Your task to perform on an android device: check android version Image 0: 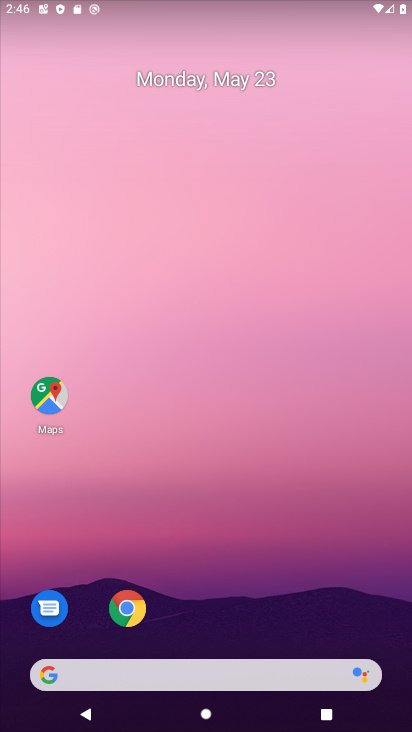
Step 0: drag from (251, 598) to (154, 87)
Your task to perform on an android device: check android version Image 1: 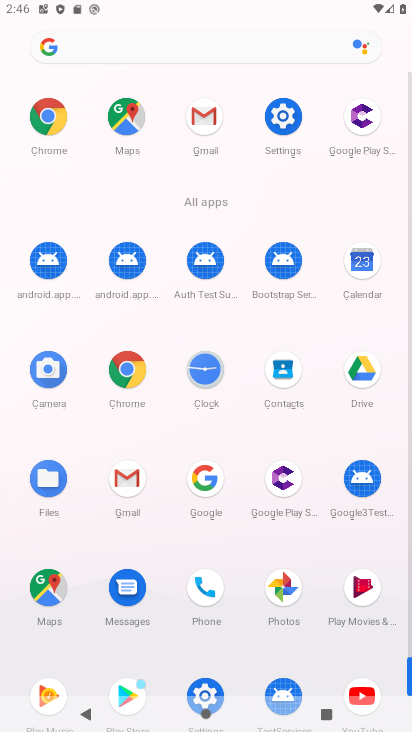
Step 1: click (282, 114)
Your task to perform on an android device: check android version Image 2: 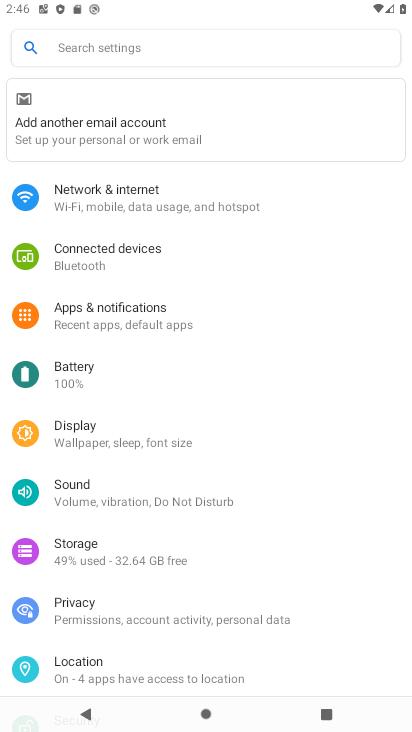
Step 2: drag from (108, 469) to (141, 389)
Your task to perform on an android device: check android version Image 3: 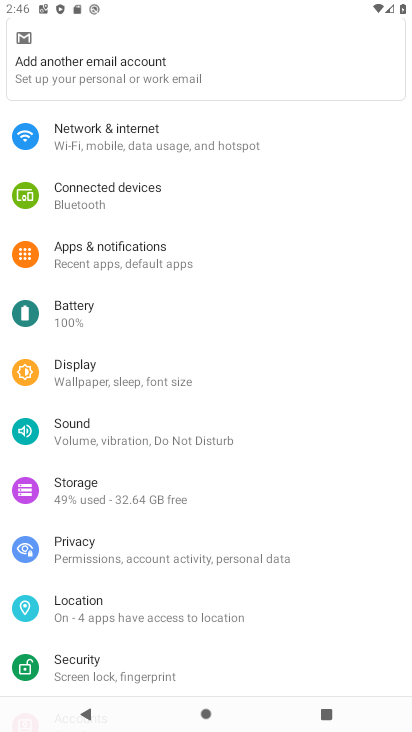
Step 3: drag from (109, 473) to (181, 382)
Your task to perform on an android device: check android version Image 4: 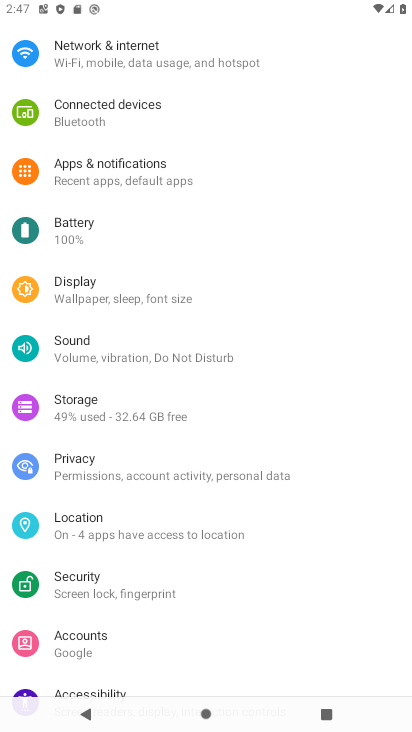
Step 4: drag from (119, 507) to (162, 435)
Your task to perform on an android device: check android version Image 5: 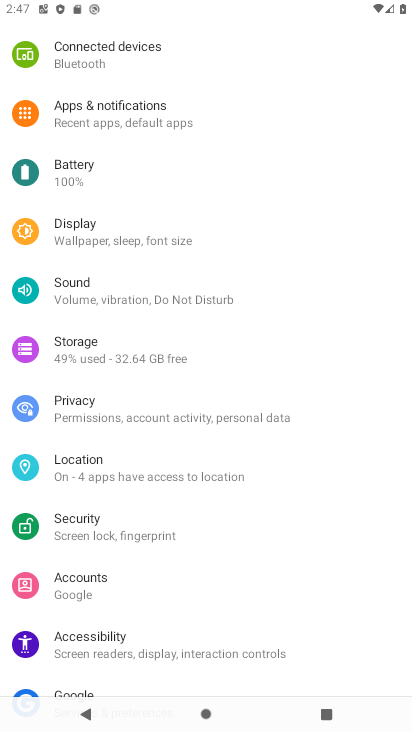
Step 5: drag from (102, 497) to (161, 418)
Your task to perform on an android device: check android version Image 6: 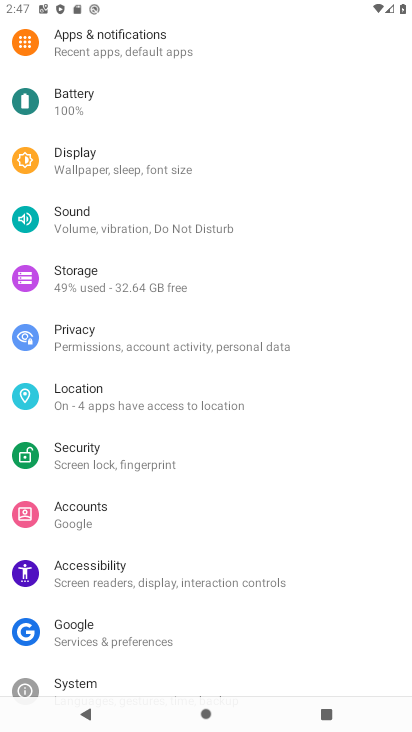
Step 6: drag from (135, 495) to (165, 446)
Your task to perform on an android device: check android version Image 7: 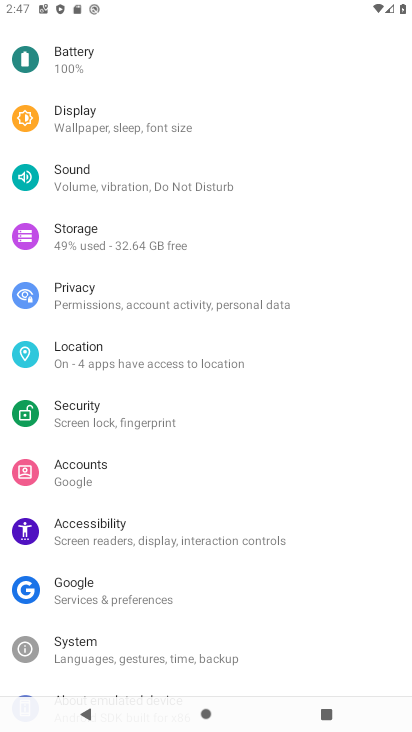
Step 7: drag from (89, 559) to (141, 487)
Your task to perform on an android device: check android version Image 8: 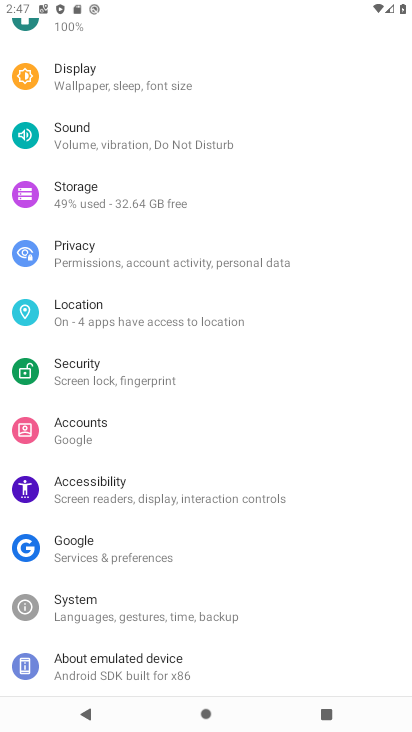
Step 8: click (112, 663)
Your task to perform on an android device: check android version Image 9: 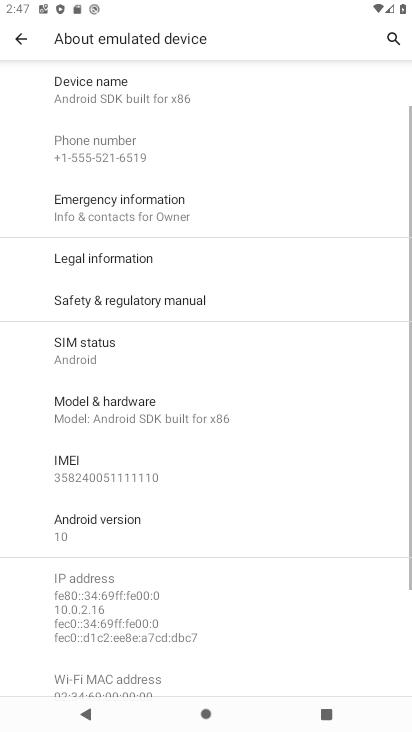
Step 9: click (111, 516)
Your task to perform on an android device: check android version Image 10: 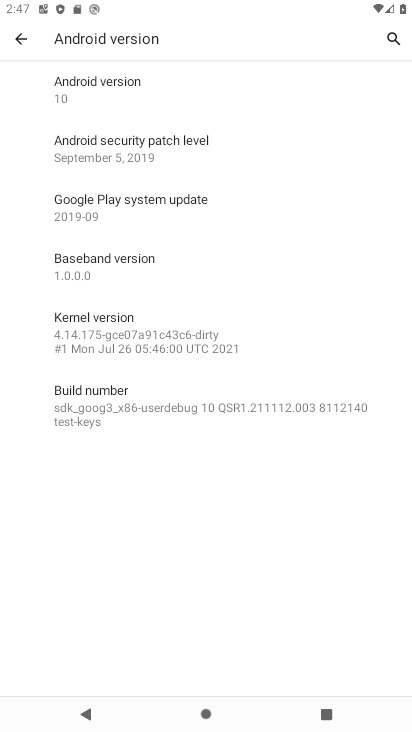
Step 10: task complete